Your task to perform on an android device: Go to Google maps Image 0: 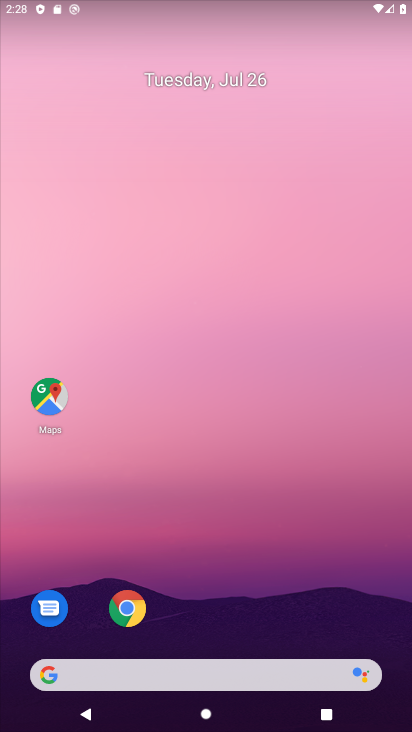
Step 0: click (52, 408)
Your task to perform on an android device: Go to Google maps Image 1: 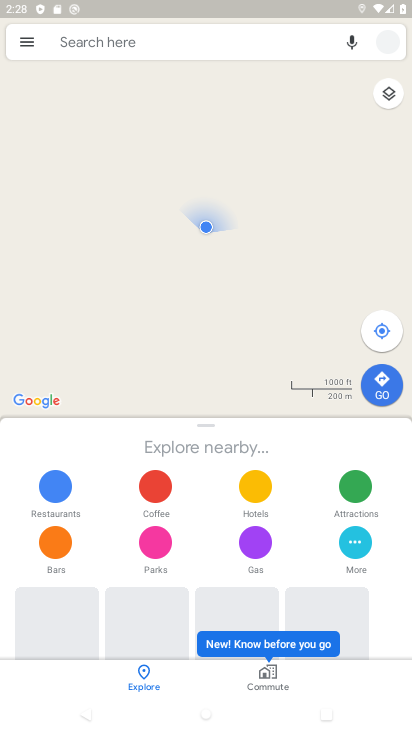
Step 1: task complete